Your task to perform on an android device: Open Chrome and go to settings Image 0: 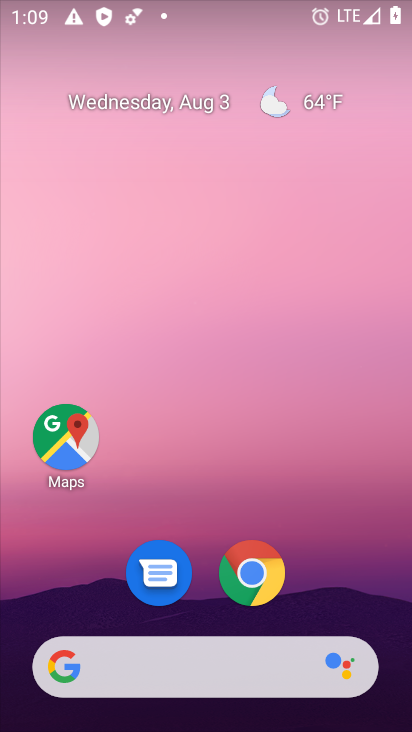
Step 0: drag from (208, 619) to (229, 225)
Your task to perform on an android device: Open Chrome and go to settings Image 1: 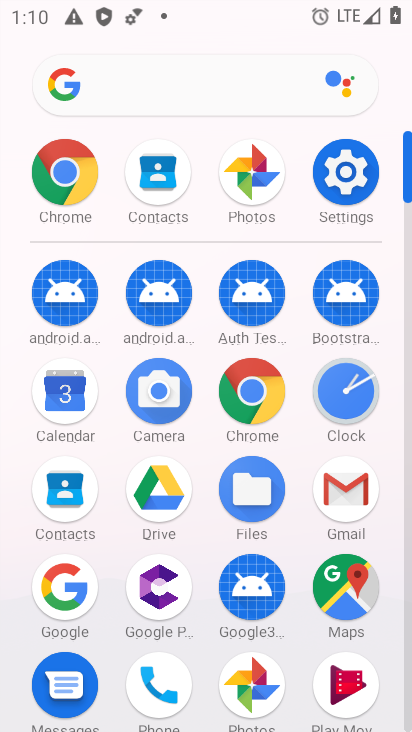
Step 1: click (254, 430)
Your task to perform on an android device: Open Chrome and go to settings Image 2: 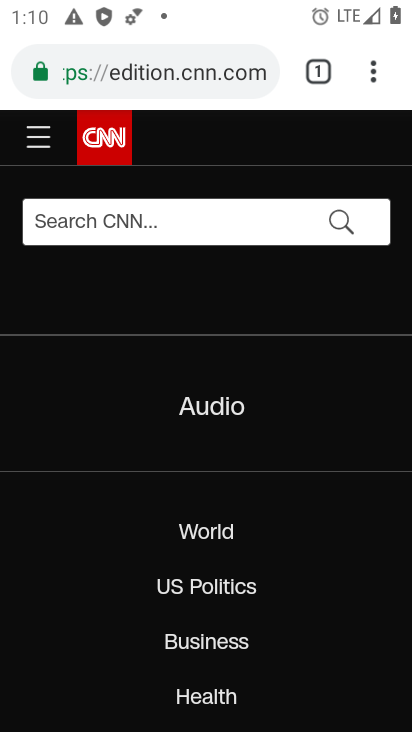
Step 2: click (311, 137)
Your task to perform on an android device: Open Chrome and go to settings Image 3: 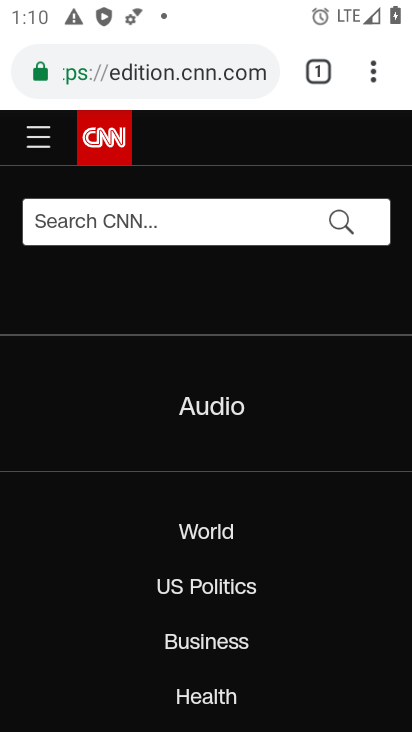
Step 3: click (382, 74)
Your task to perform on an android device: Open Chrome and go to settings Image 4: 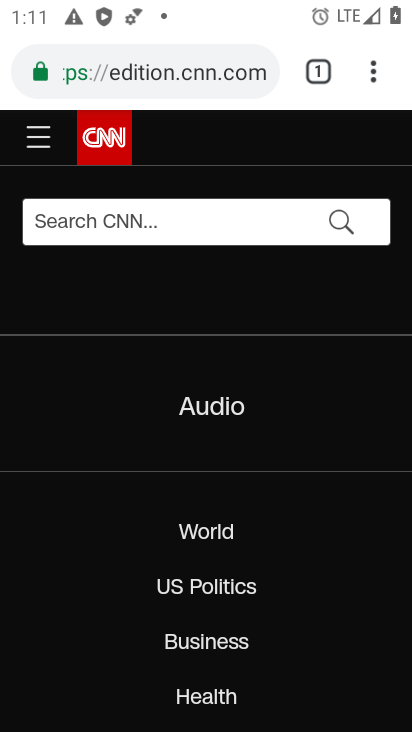
Step 4: click (380, 67)
Your task to perform on an android device: Open Chrome and go to settings Image 5: 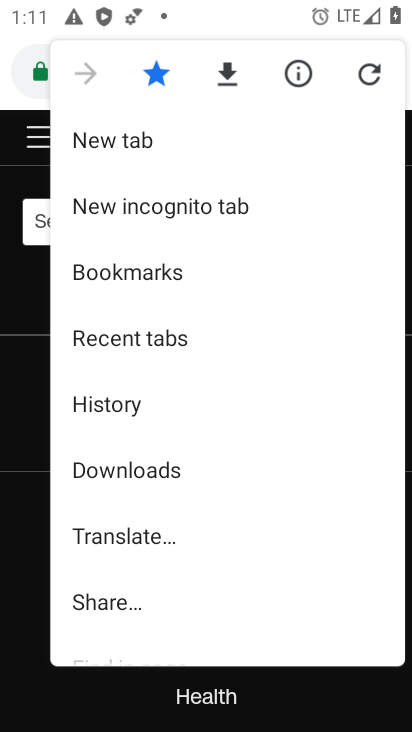
Step 5: drag from (144, 597) to (142, 124)
Your task to perform on an android device: Open Chrome and go to settings Image 6: 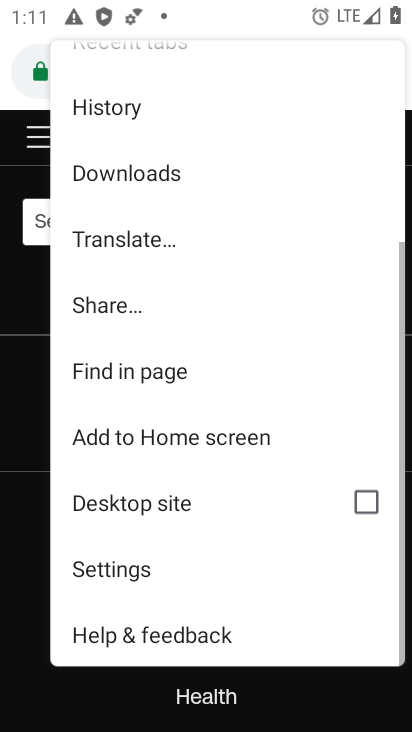
Step 6: click (119, 577)
Your task to perform on an android device: Open Chrome and go to settings Image 7: 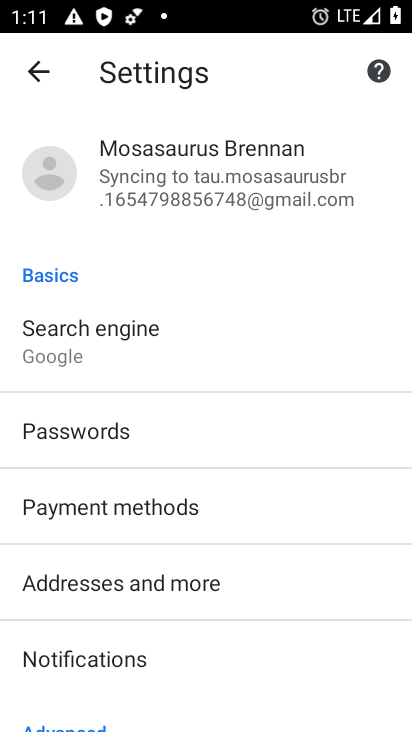
Step 7: task complete